Your task to perform on an android device: turn off wifi Image 0: 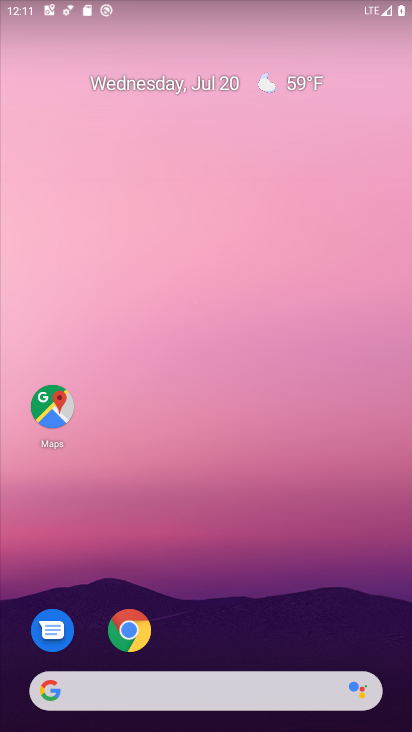
Step 0: drag from (377, 641) to (334, 173)
Your task to perform on an android device: turn off wifi Image 1: 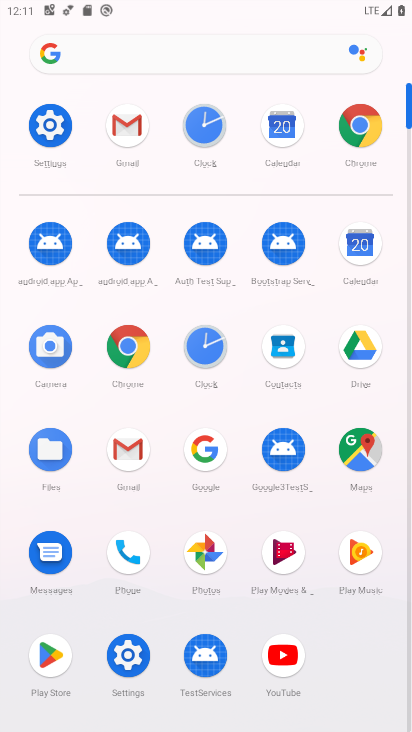
Step 1: click (133, 655)
Your task to perform on an android device: turn off wifi Image 2: 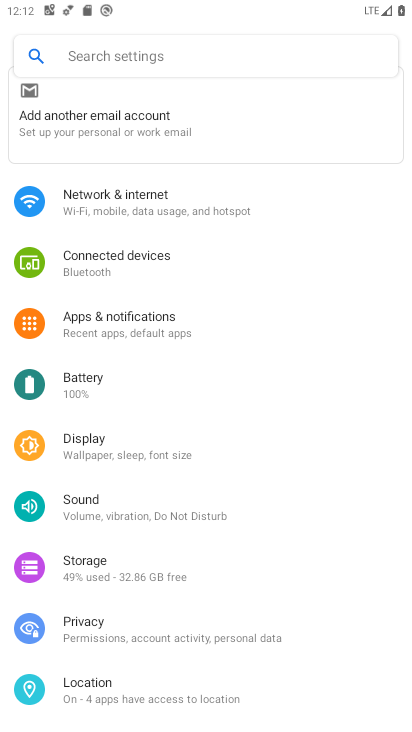
Step 2: click (101, 192)
Your task to perform on an android device: turn off wifi Image 3: 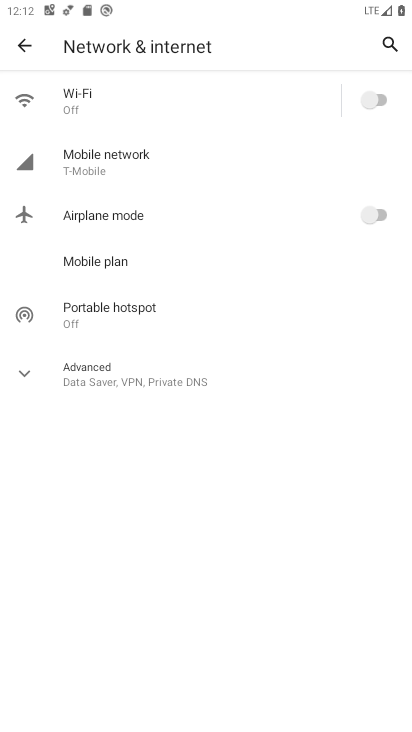
Step 3: task complete